Your task to perform on an android device: show emergency info Image 0: 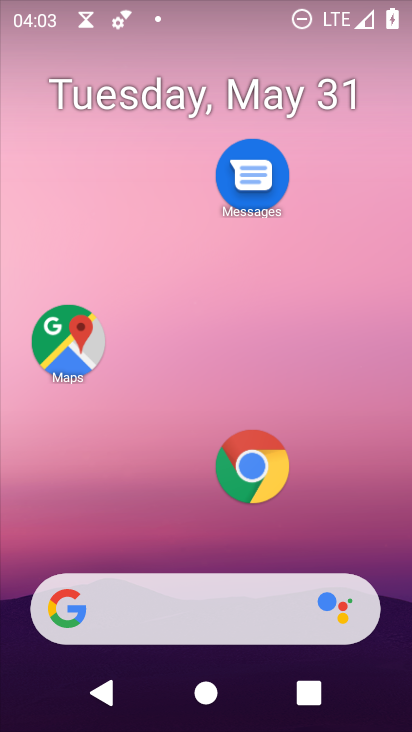
Step 0: drag from (66, 460) to (163, 108)
Your task to perform on an android device: show emergency info Image 1: 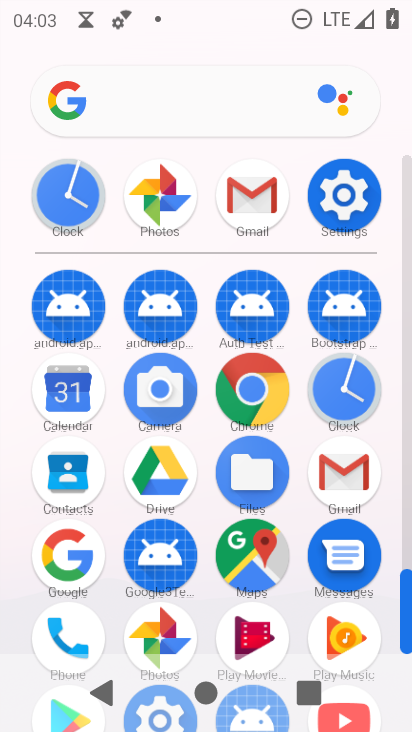
Step 1: click (341, 198)
Your task to perform on an android device: show emergency info Image 2: 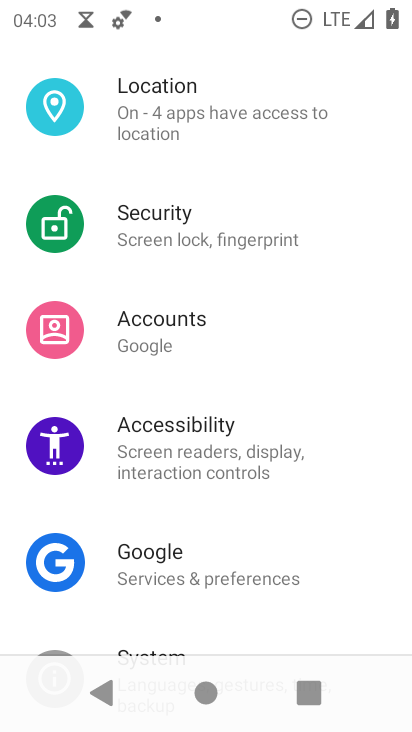
Step 2: drag from (196, 120) to (178, 585)
Your task to perform on an android device: show emergency info Image 3: 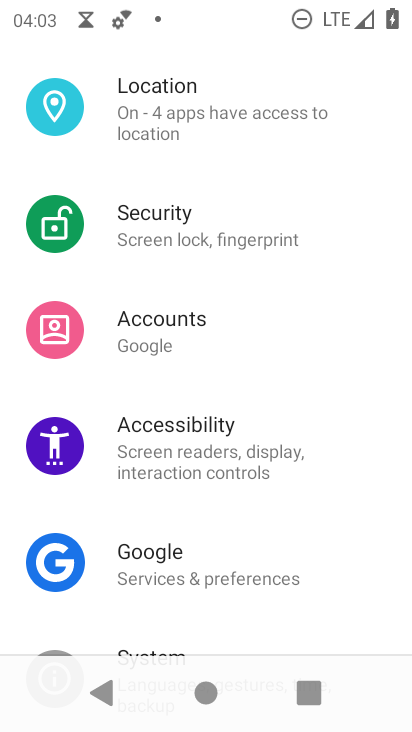
Step 3: drag from (183, 598) to (295, 77)
Your task to perform on an android device: show emergency info Image 4: 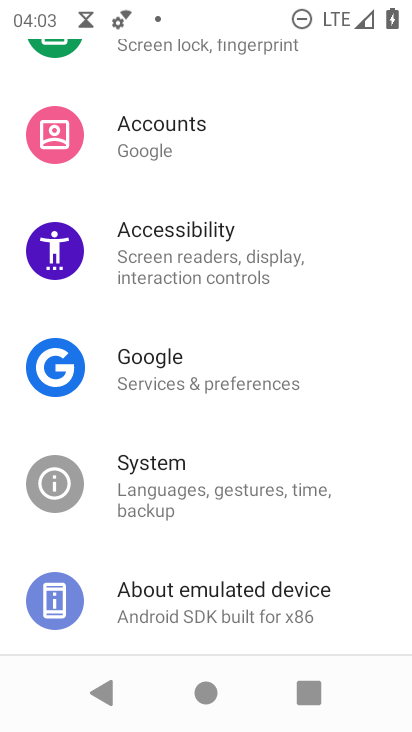
Step 4: click (215, 594)
Your task to perform on an android device: show emergency info Image 5: 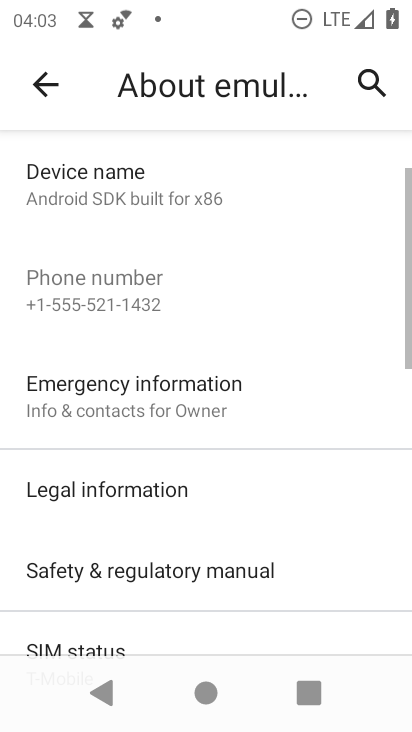
Step 5: click (106, 400)
Your task to perform on an android device: show emergency info Image 6: 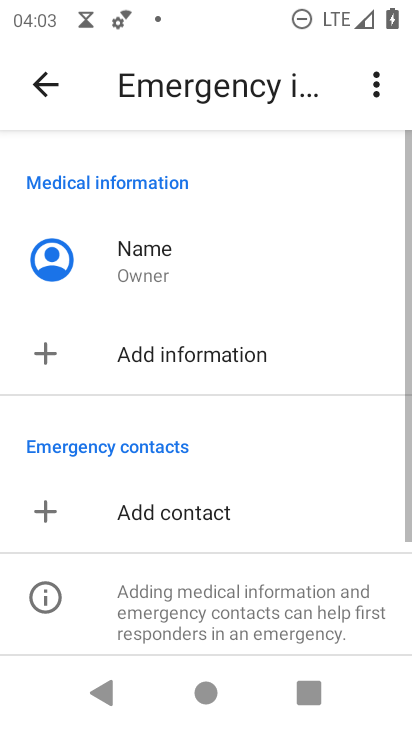
Step 6: task complete